Your task to perform on an android device: check data usage Image 0: 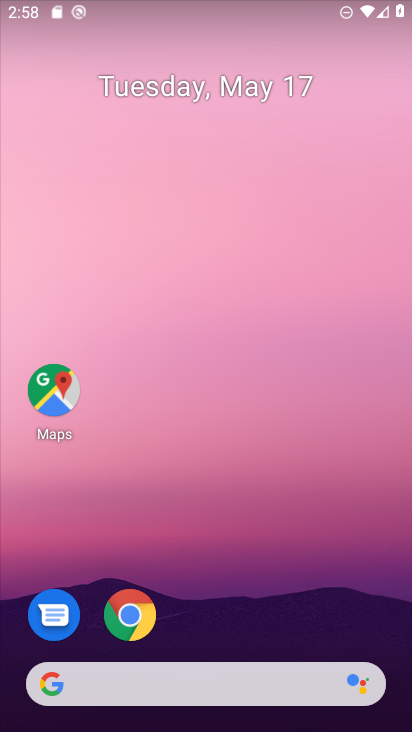
Step 0: drag from (178, 723) to (191, 237)
Your task to perform on an android device: check data usage Image 1: 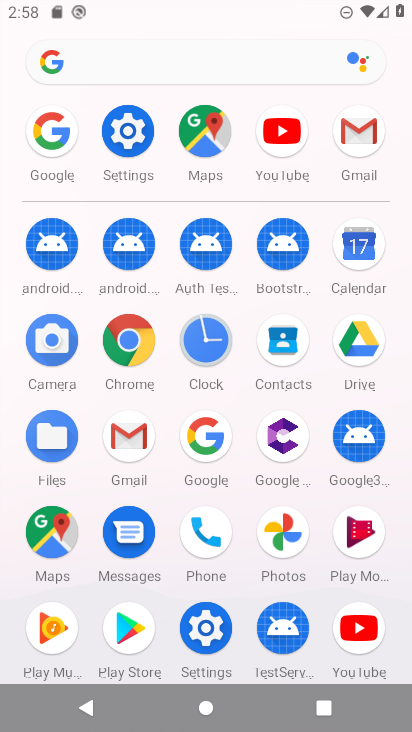
Step 1: click (122, 128)
Your task to perform on an android device: check data usage Image 2: 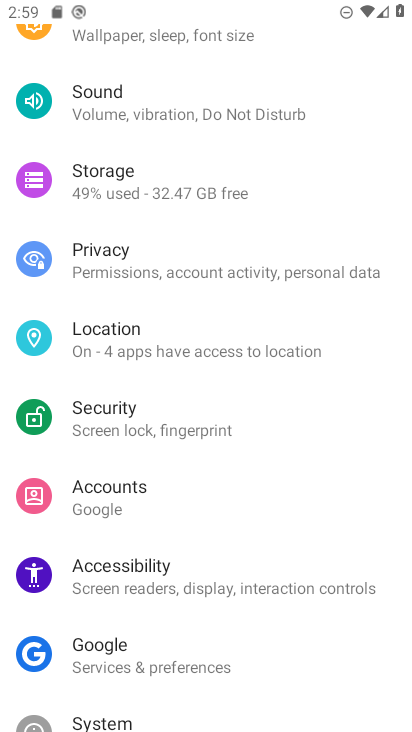
Step 2: drag from (227, 134) to (239, 536)
Your task to perform on an android device: check data usage Image 3: 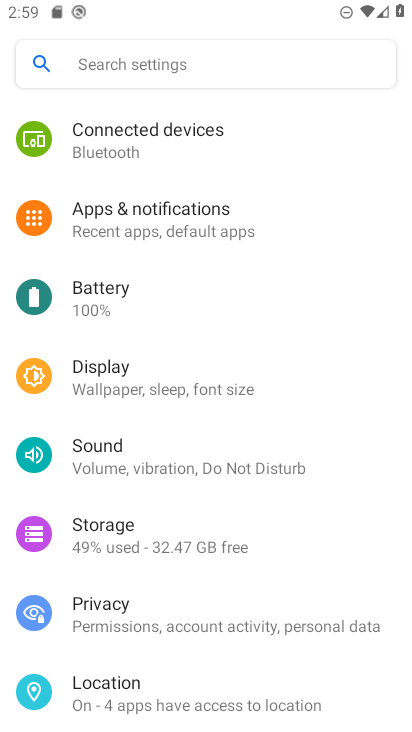
Step 3: drag from (180, 142) to (170, 540)
Your task to perform on an android device: check data usage Image 4: 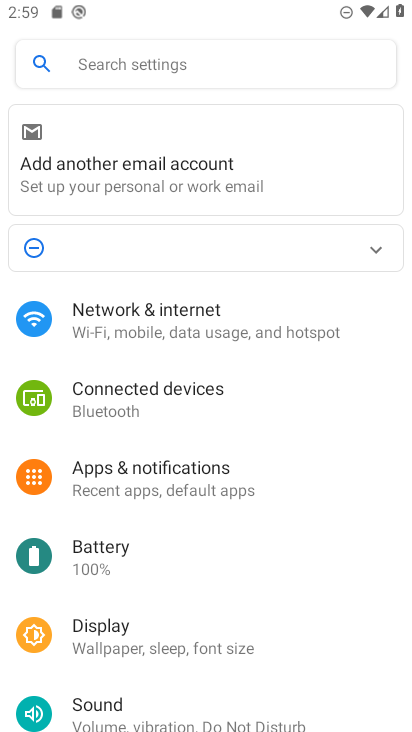
Step 4: click (161, 332)
Your task to perform on an android device: check data usage Image 5: 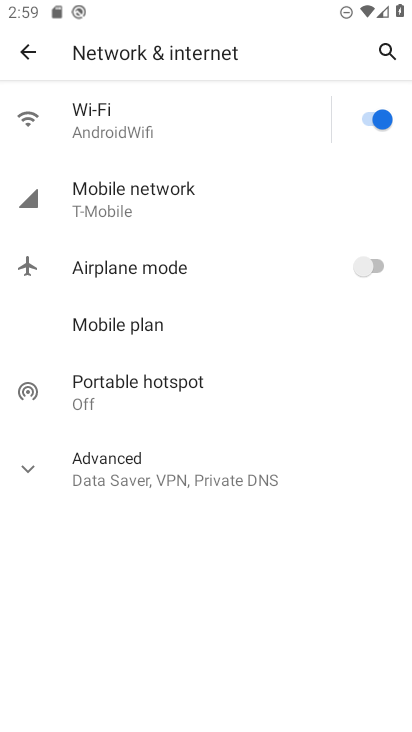
Step 5: click (113, 191)
Your task to perform on an android device: check data usage Image 6: 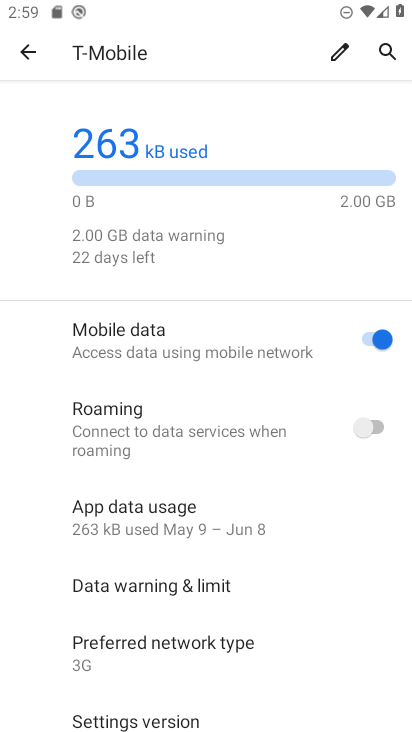
Step 6: click (123, 511)
Your task to perform on an android device: check data usage Image 7: 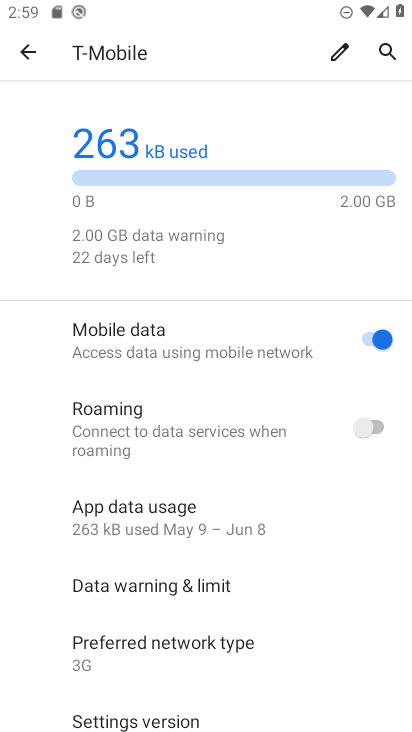
Step 7: click (146, 515)
Your task to perform on an android device: check data usage Image 8: 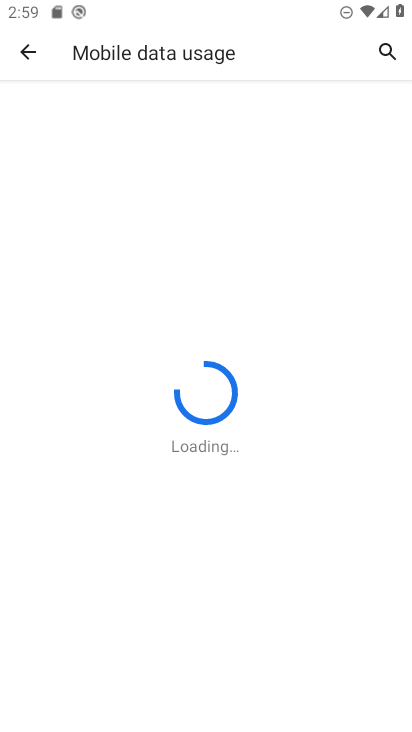
Step 8: task complete